Your task to perform on an android device: Open accessibility settings Image 0: 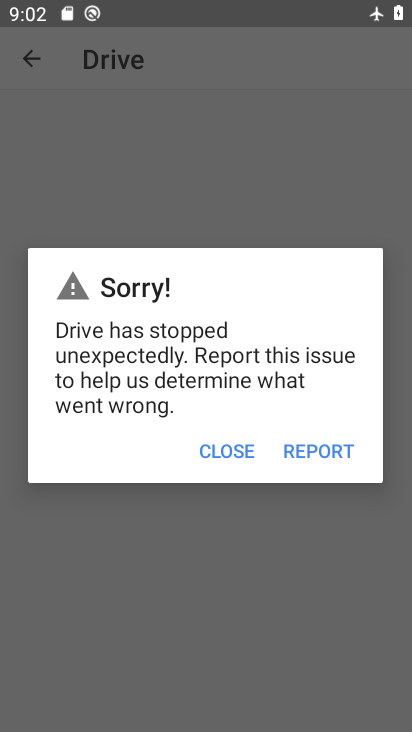
Step 0: press home button
Your task to perform on an android device: Open accessibility settings Image 1: 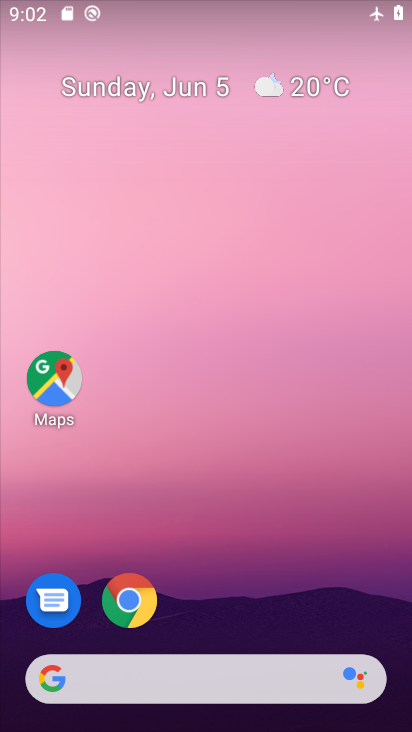
Step 1: drag from (214, 579) to (170, 0)
Your task to perform on an android device: Open accessibility settings Image 2: 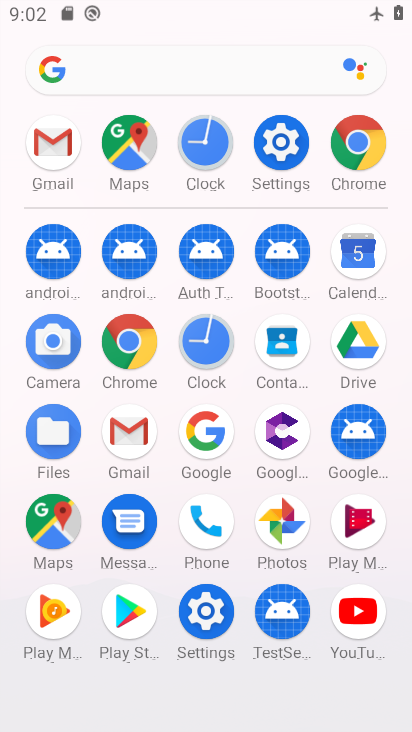
Step 2: click (277, 136)
Your task to perform on an android device: Open accessibility settings Image 3: 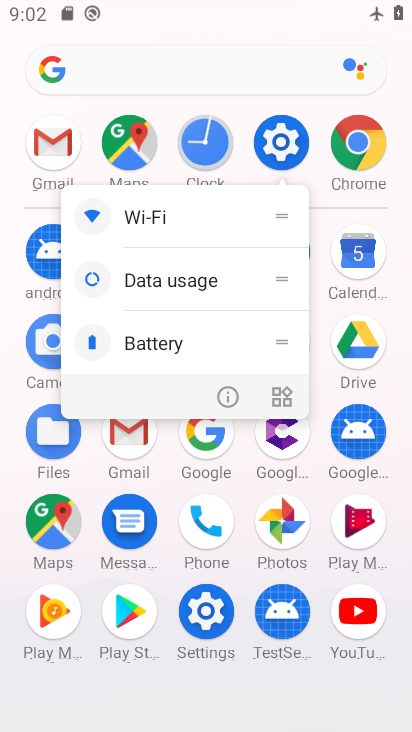
Step 3: click (289, 137)
Your task to perform on an android device: Open accessibility settings Image 4: 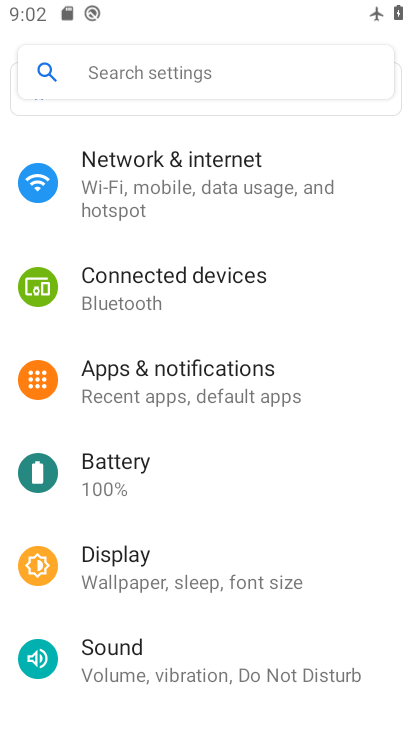
Step 4: drag from (269, 449) to (265, 137)
Your task to perform on an android device: Open accessibility settings Image 5: 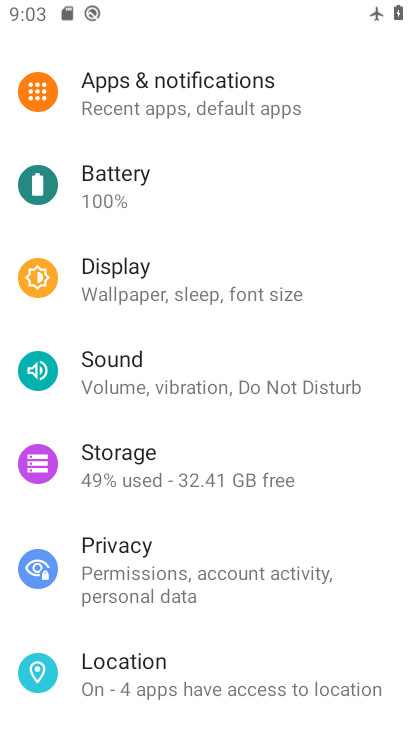
Step 5: drag from (239, 615) to (284, 35)
Your task to perform on an android device: Open accessibility settings Image 6: 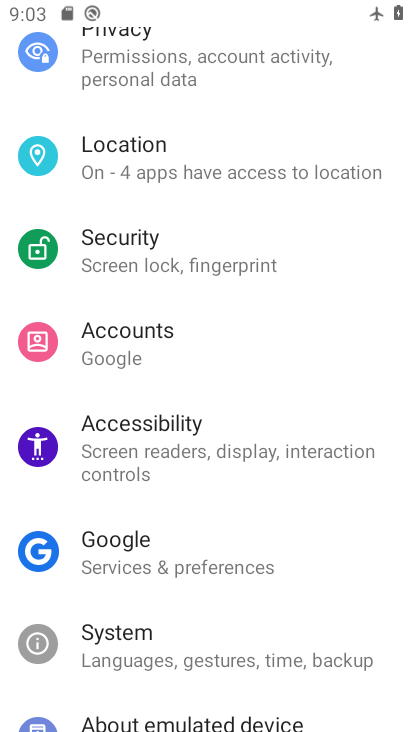
Step 6: click (226, 442)
Your task to perform on an android device: Open accessibility settings Image 7: 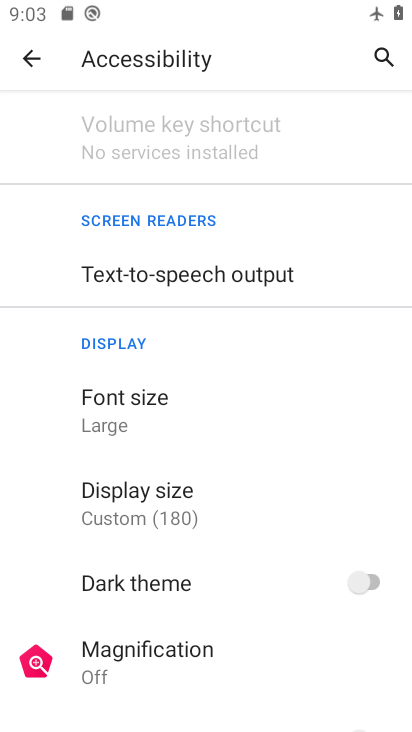
Step 7: task complete